Your task to perform on an android device: see sites visited before in the chrome app Image 0: 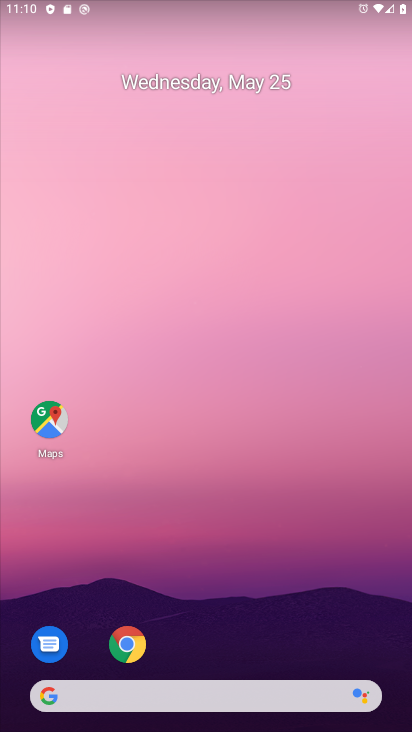
Step 0: click (128, 645)
Your task to perform on an android device: see sites visited before in the chrome app Image 1: 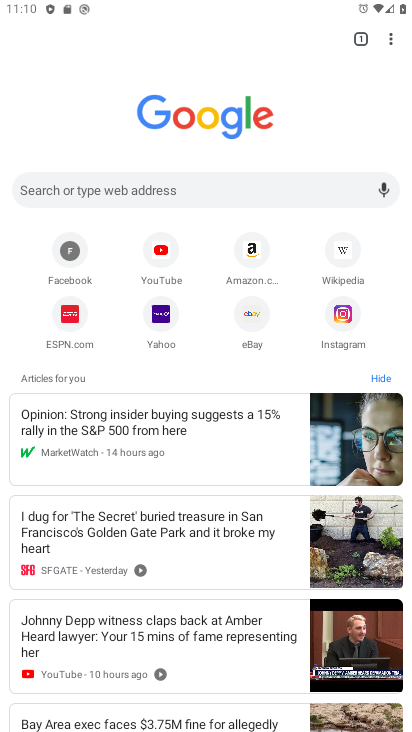
Step 1: click (392, 39)
Your task to perform on an android device: see sites visited before in the chrome app Image 2: 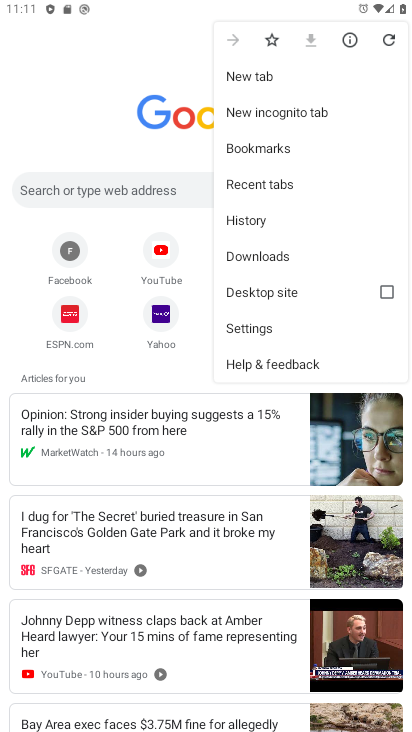
Step 2: click (257, 221)
Your task to perform on an android device: see sites visited before in the chrome app Image 3: 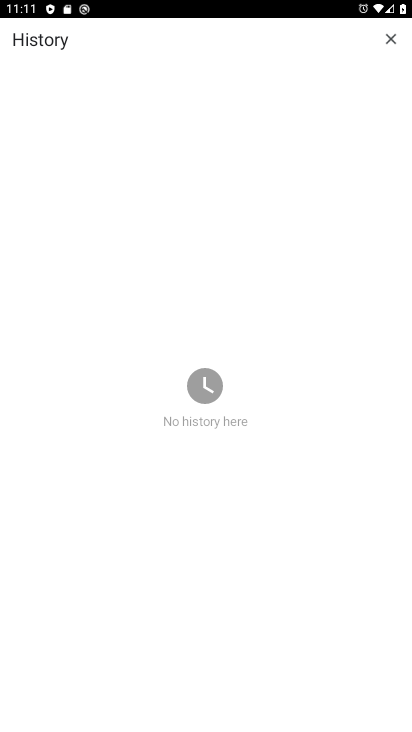
Step 3: task complete